Your task to perform on an android device: manage bookmarks in the chrome app Image 0: 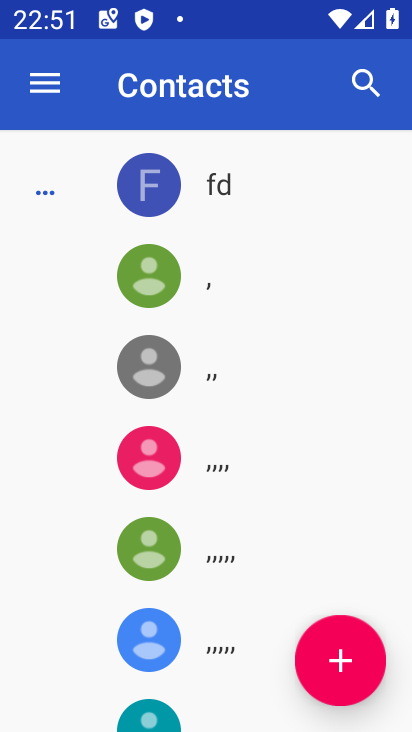
Step 0: press back button
Your task to perform on an android device: manage bookmarks in the chrome app Image 1: 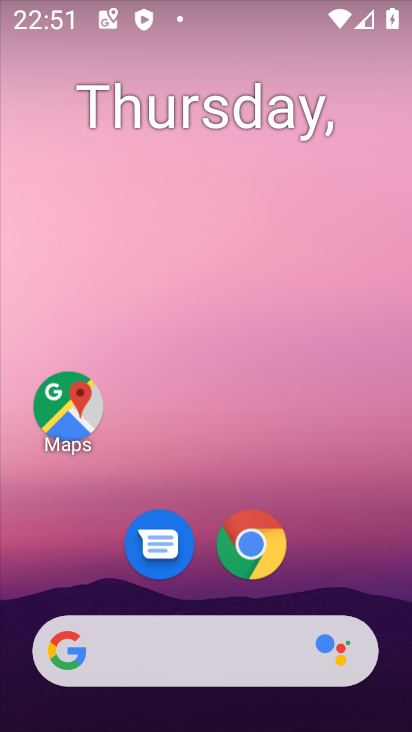
Step 1: drag from (331, 529) to (234, 3)
Your task to perform on an android device: manage bookmarks in the chrome app Image 2: 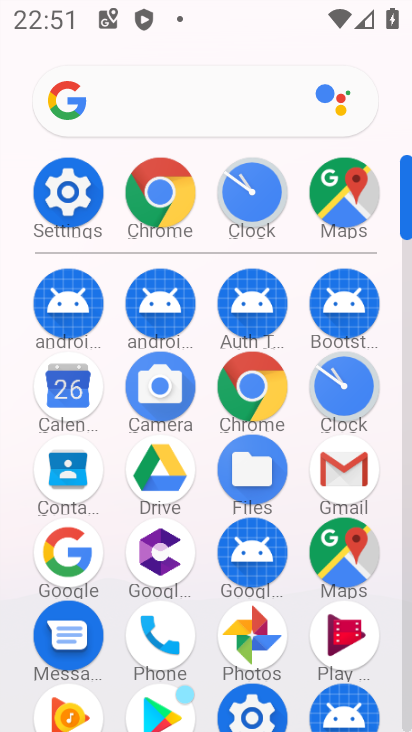
Step 2: click (157, 188)
Your task to perform on an android device: manage bookmarks in the chrome app Image 3: 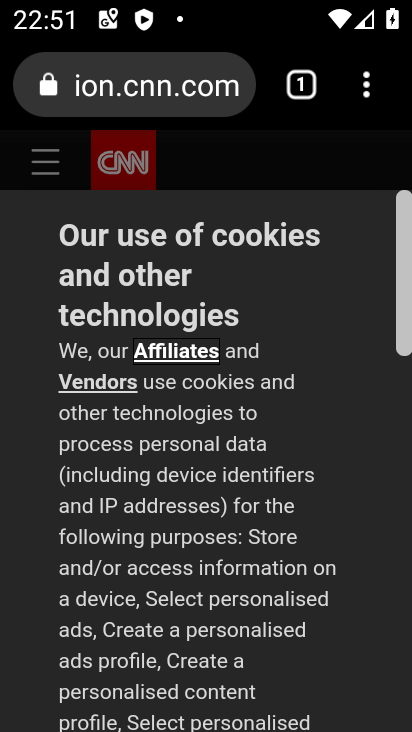
Step 3: task complete